Your task to perform on an android device: Open settings on Google Maps Image 0: 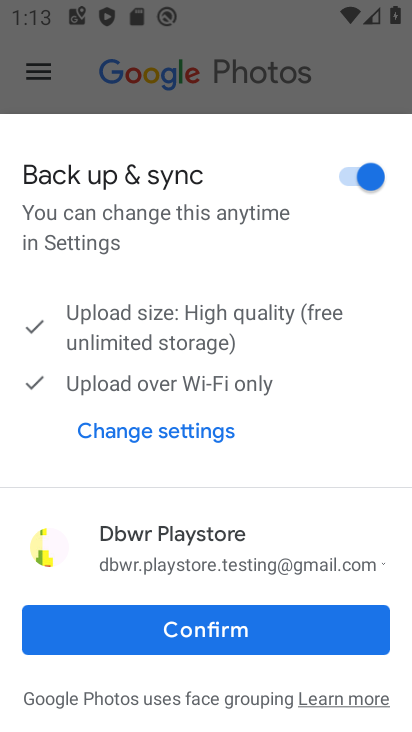
Step 0: press home button
Your task to perform on an android device: Open settings on Google Maps Image 1: 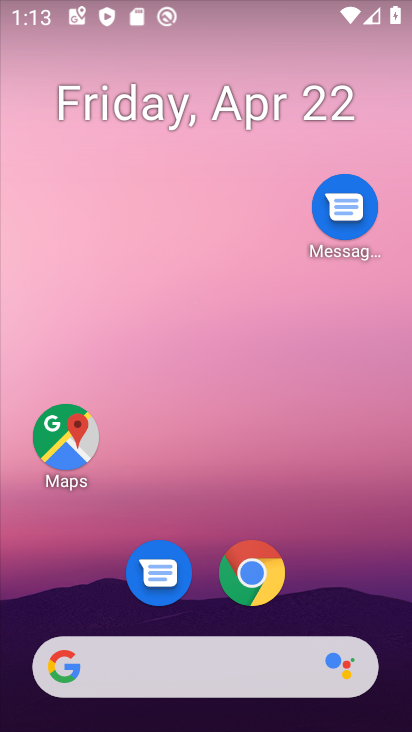
Step 1: click (65, 434)
Your task to perform on an android device: Open settings on Google Maps Image 2: 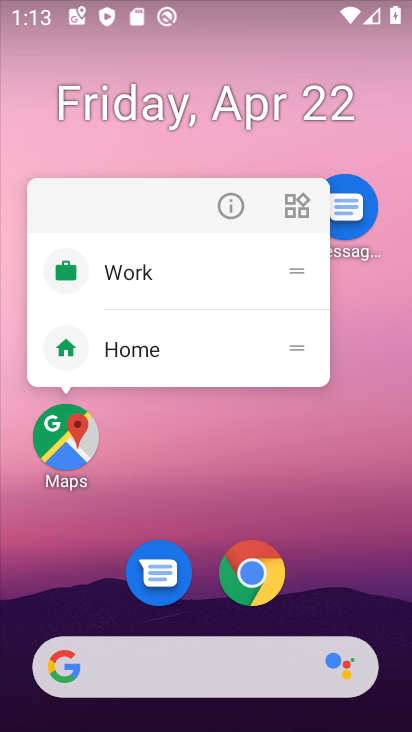
Step 2: click (66, 434)
Your task to perform on an android device: Open settings on Google Maps Image 3: 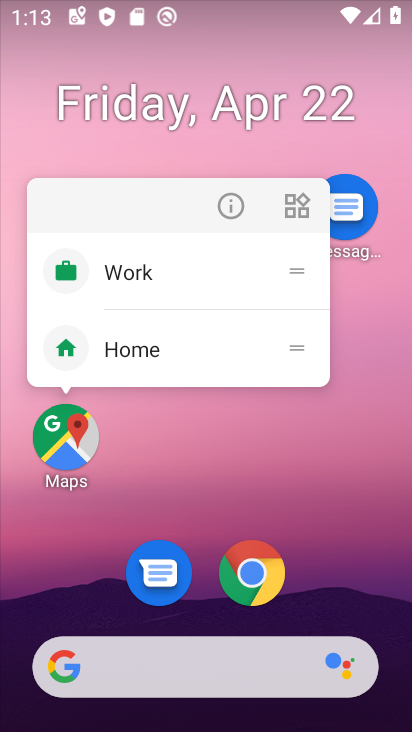
Step 3: click (71, 444)
Your task to perform on an android device: Open settings on Google Maps Image 4: 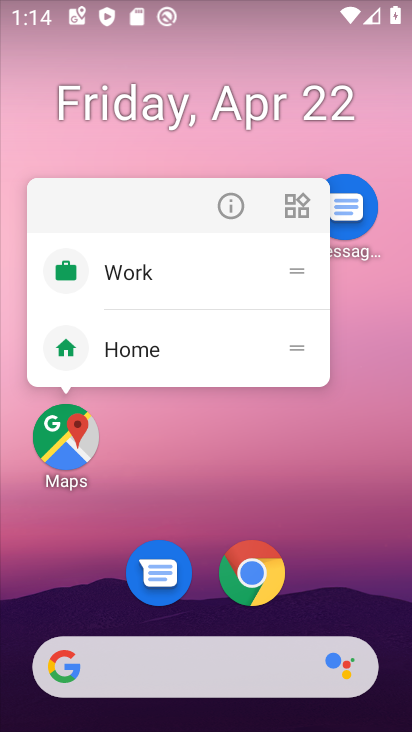
Step 4: click (70, 450)
Your task to perform on an android device: Open settings on Google Maps Image 5: 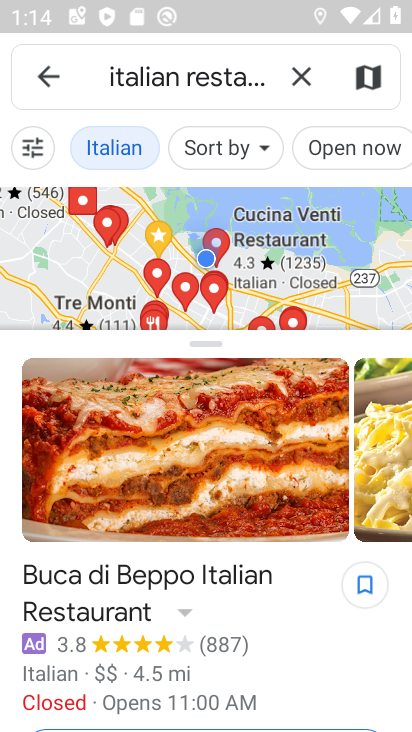
Step 5: press back button
Your task to perform on an android device: Open settings on Google Maps Image 6: 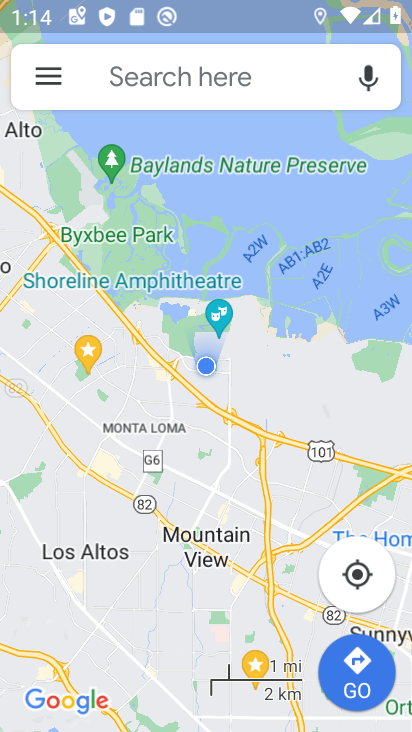
Step 6: click (56, 76)
Your task to perform on an android device: Open settings on Google Maps Image 7: 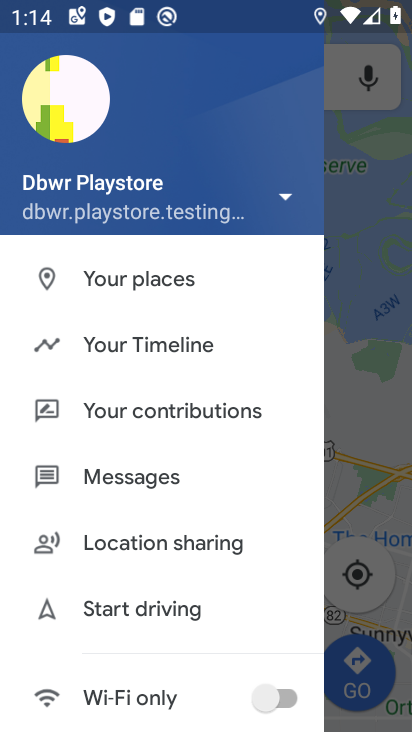
Step 7: drag from (163, 678) to (169, 263)
Your task to perform on an android device: Open settings on Google Maps Image 8: 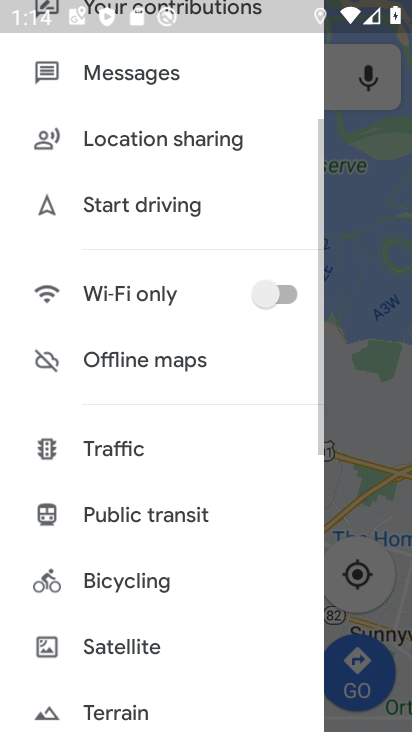
Step 8: drag from (165, 648) to (174, 292)
Your task to perform on an android device: Open settings on Google Maps Image 9: 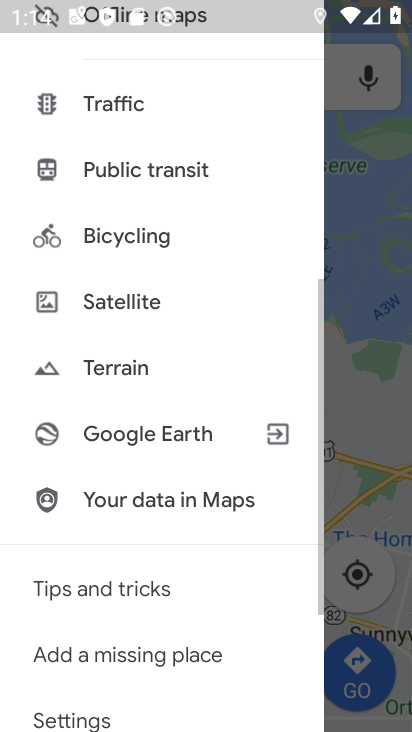
Step 9: drag from (216, 650) to (201, 328)
Your task to perform on an android device: Open settings on Google Maps Image 10: 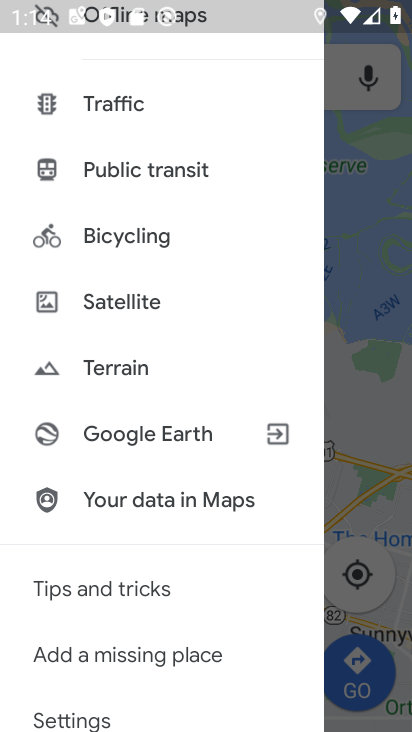
Step 10: click (129, 716)
Your task to perform on an android device: Open settings on Google Maps Image 11: 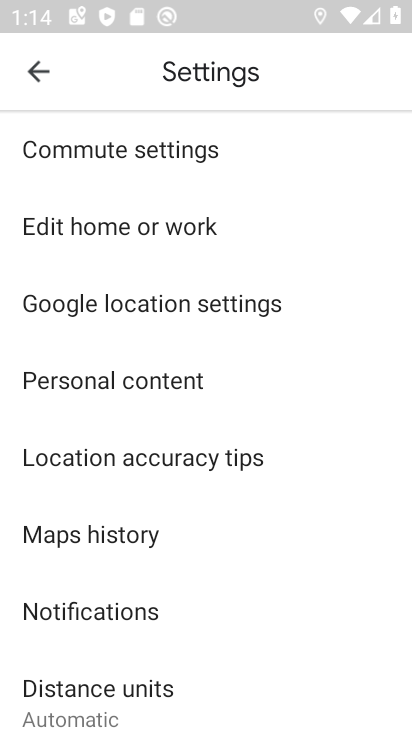
Step 11: task complete